Your task to perform on an android device: install app "Skype" Image 0: 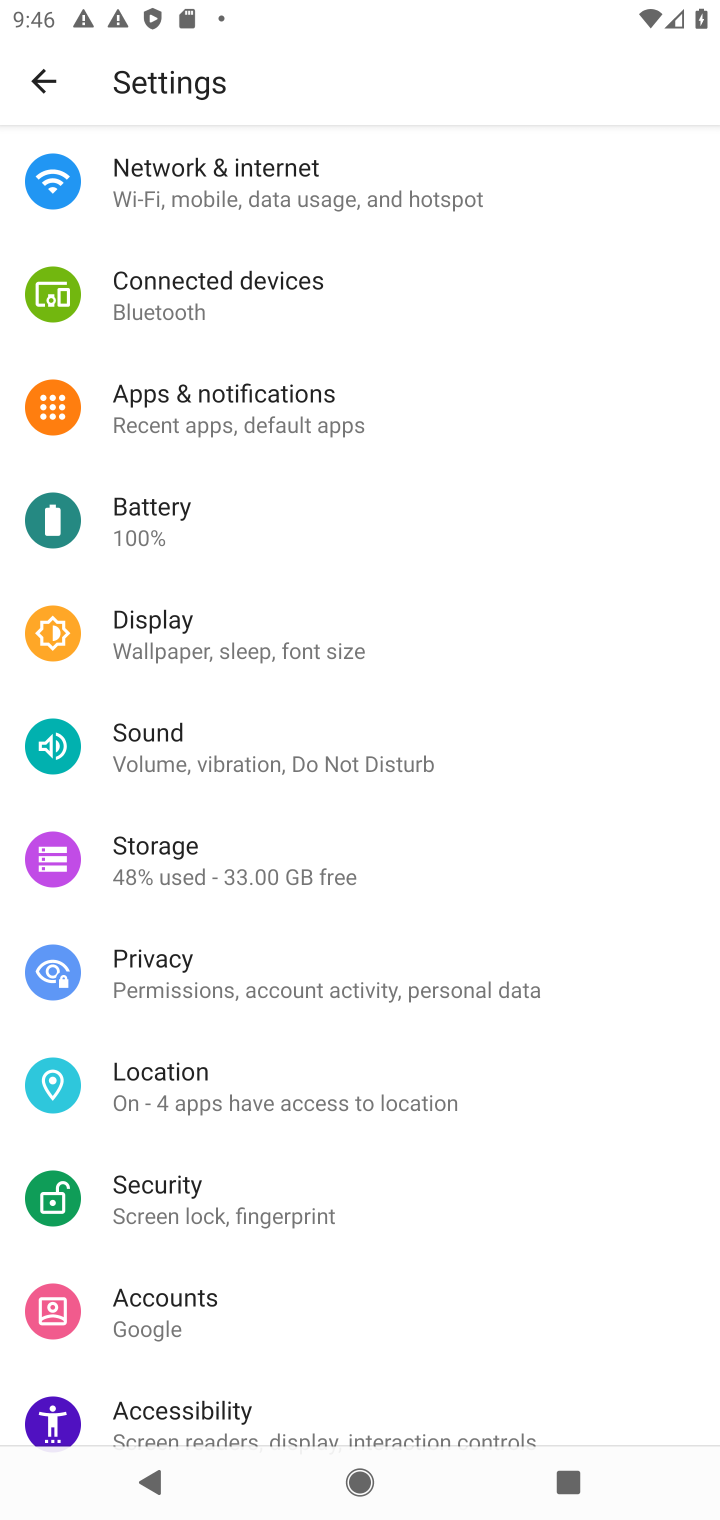
Step 0: press home button
Your task to perform on an android device: install app "Skype" Image 1: 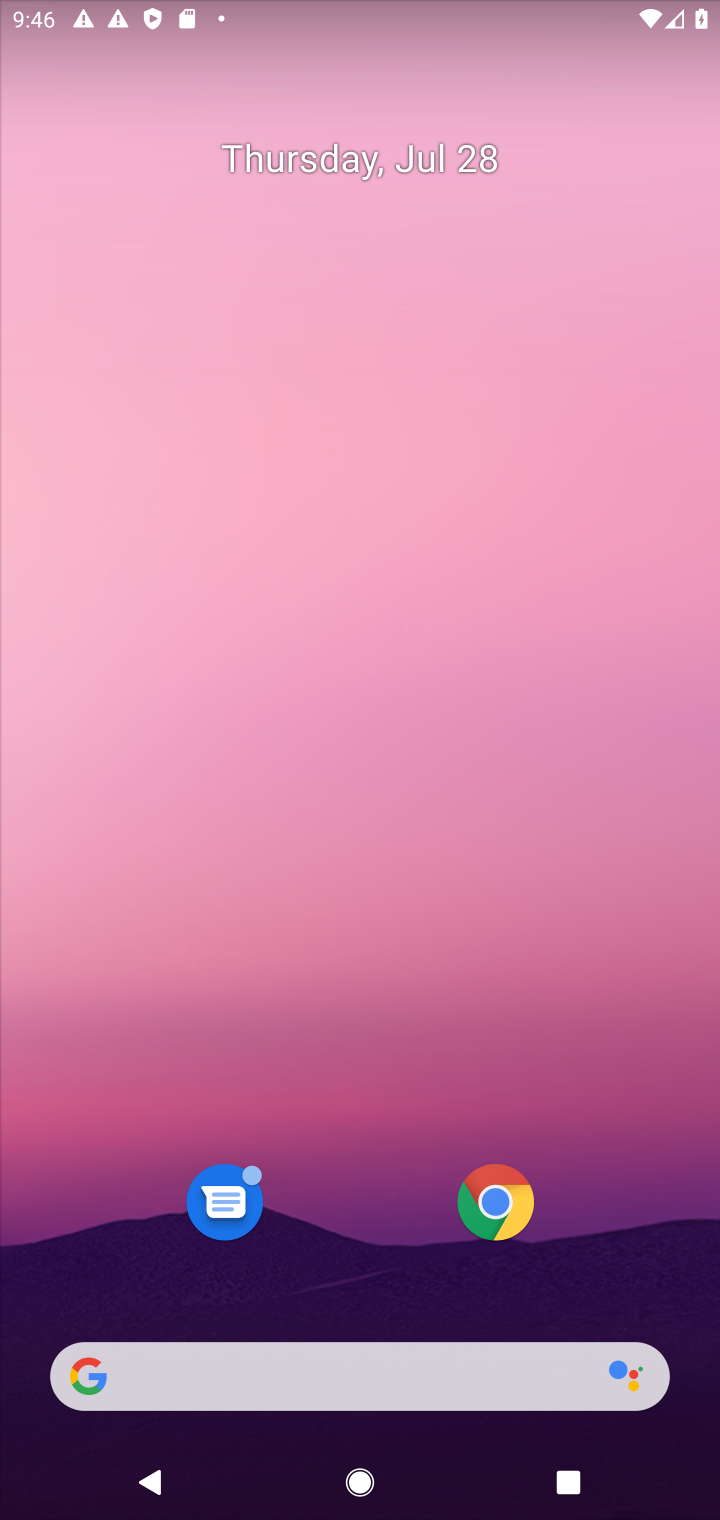
Step 1: click (382, 1389)
Your task to perform on an android device: install app "Skype" Image 2: 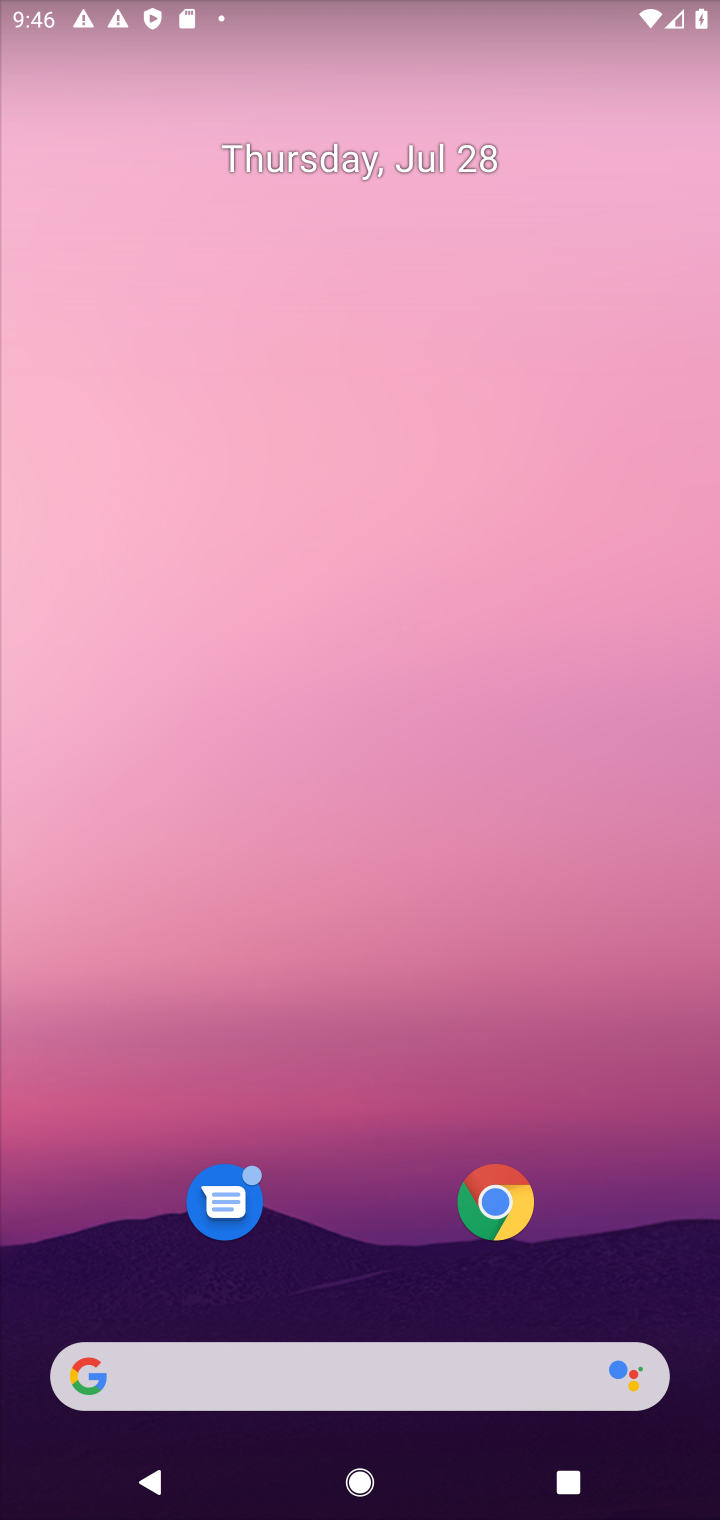
Step 2: click (382, 1389)
Your task to perform on an android device: install app "Skype" Image 3: 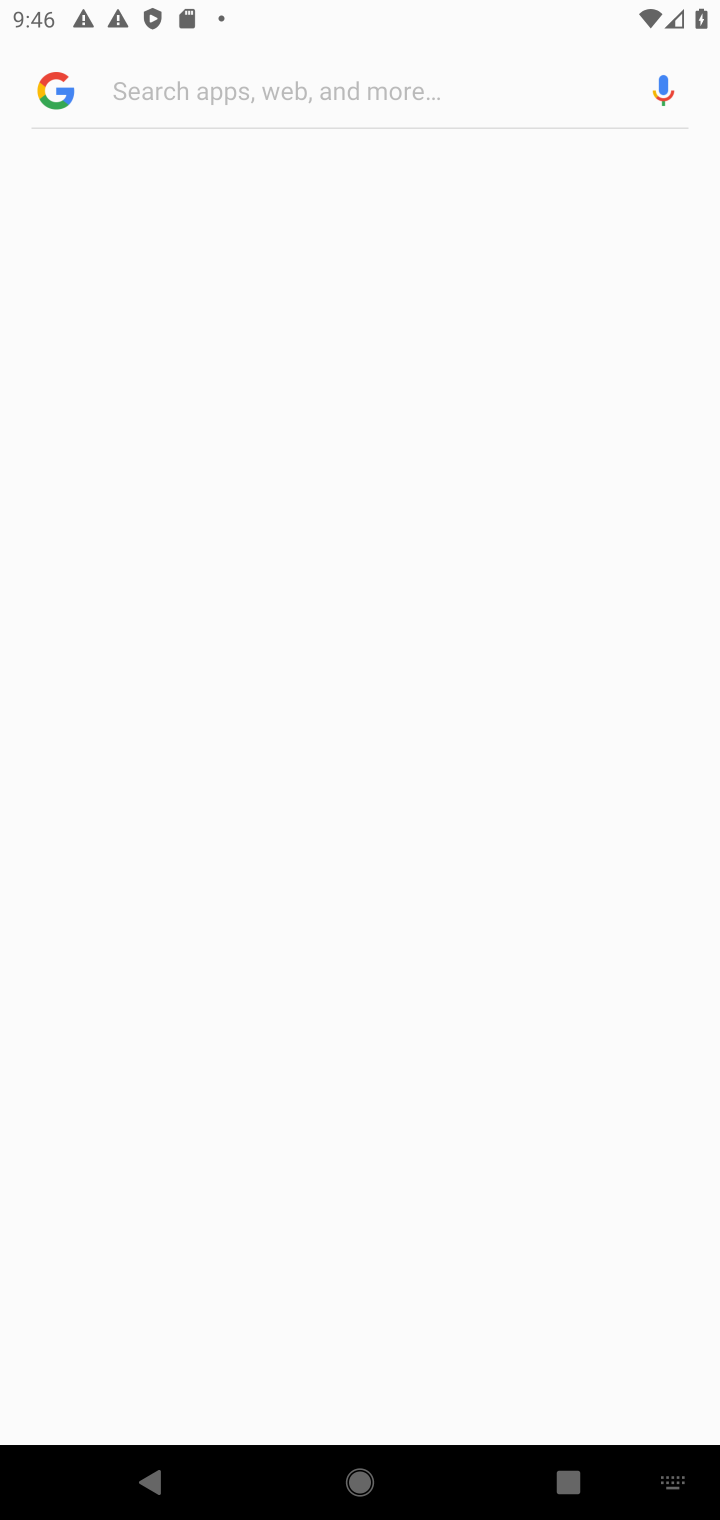
Step 3: type "skpe"
Your task to perform on an android device: install app "Skype" Image 4: 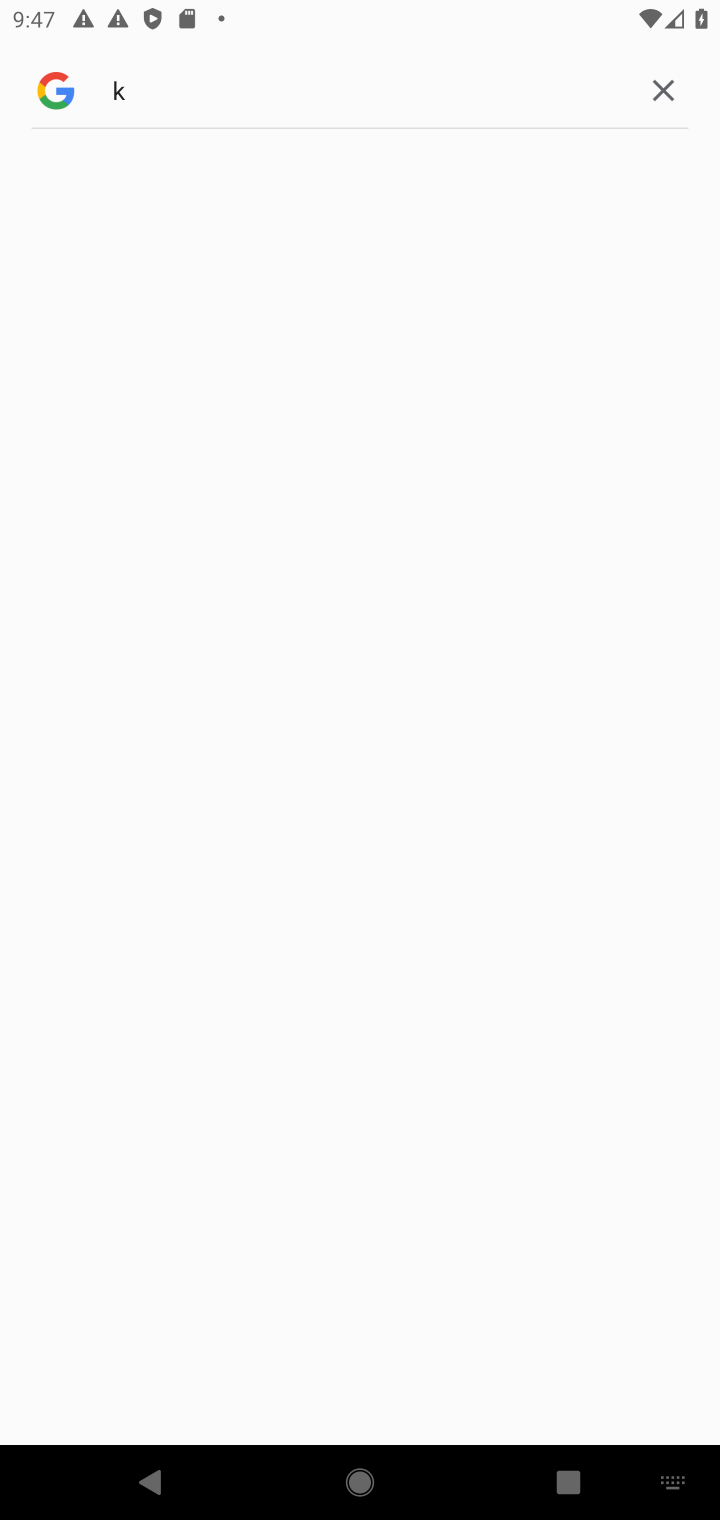
Step 4: type "skype"
Your task to perform on an android device: install app "Skype" Image 5: 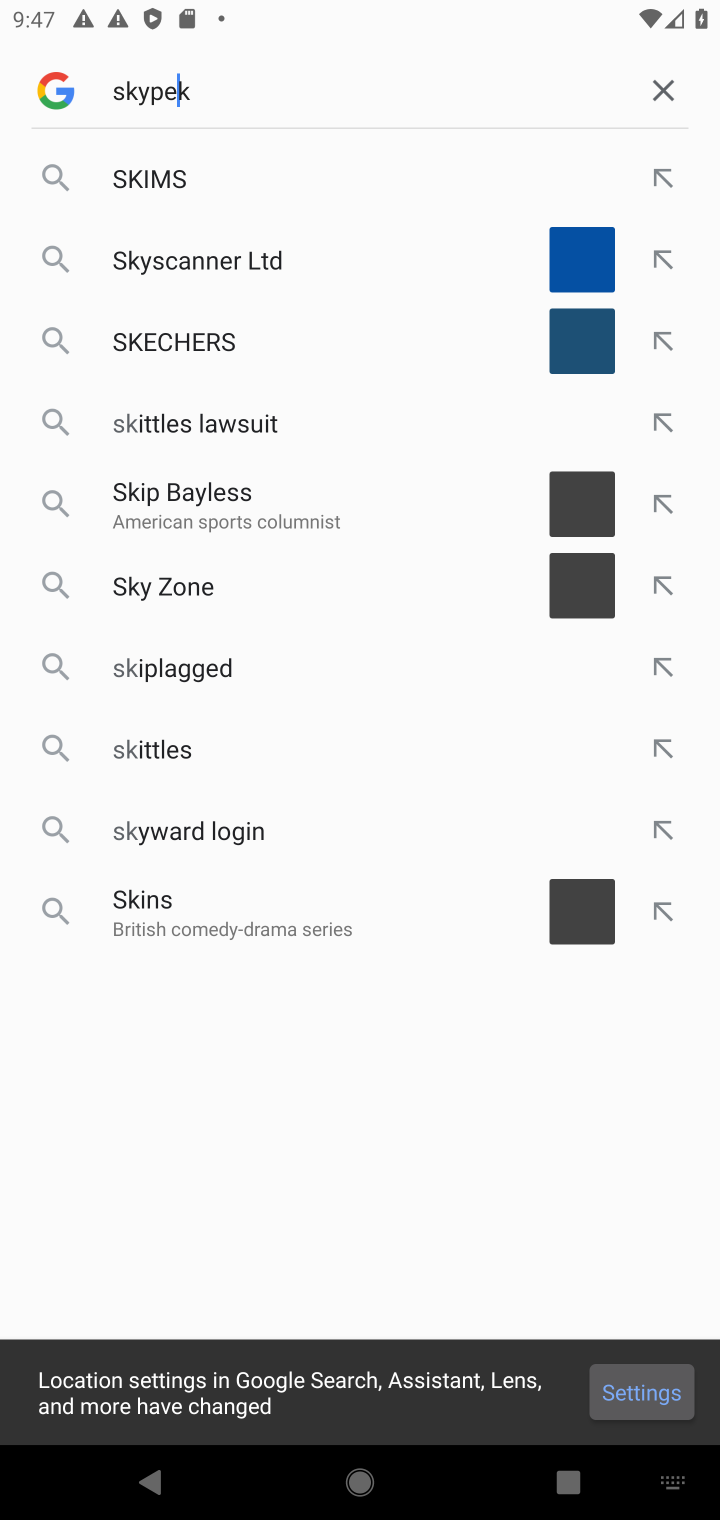
Step 5: click (654, 112)
Your task to perform on an android device: install app "Skype" Image 6: 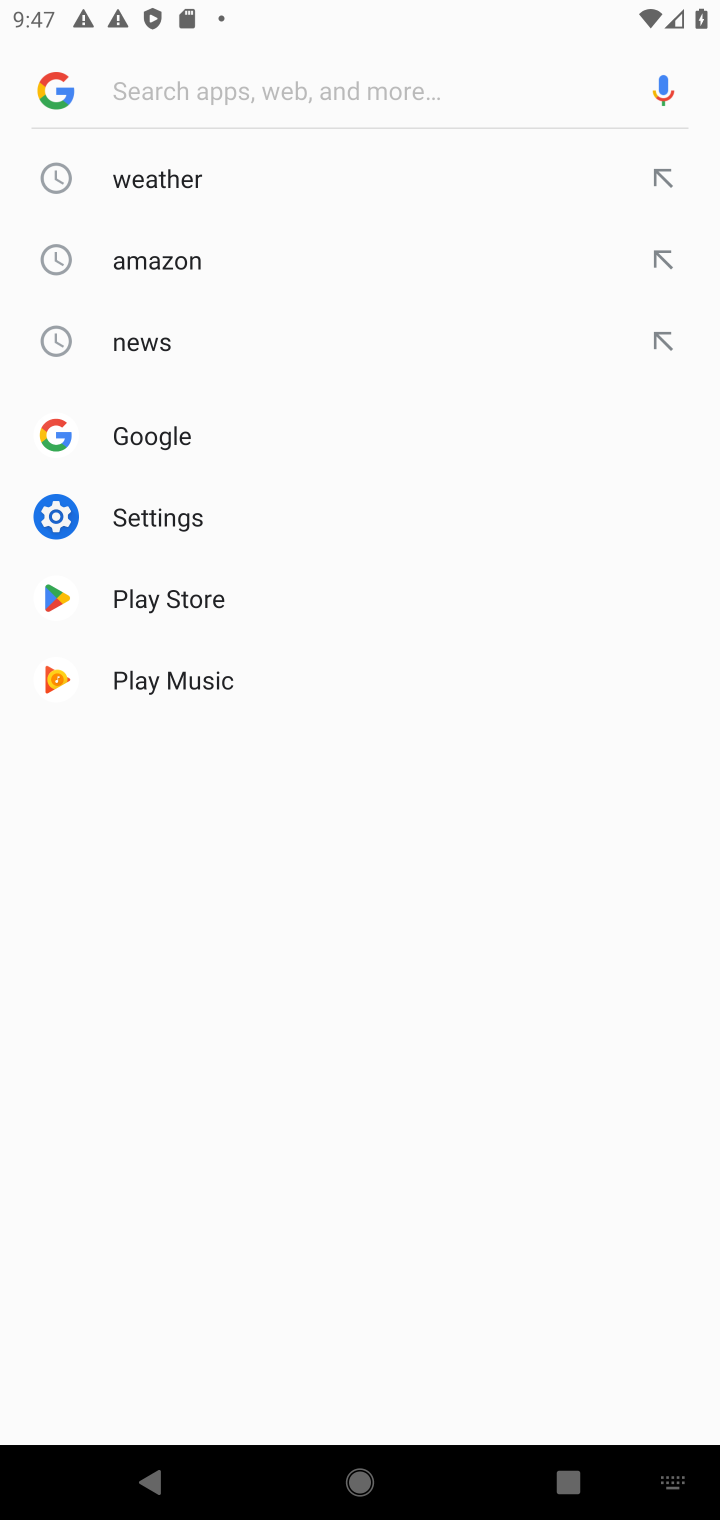
Step 6: type "skype"
Your task to perform on an android device: install app "Skype" Image 7: 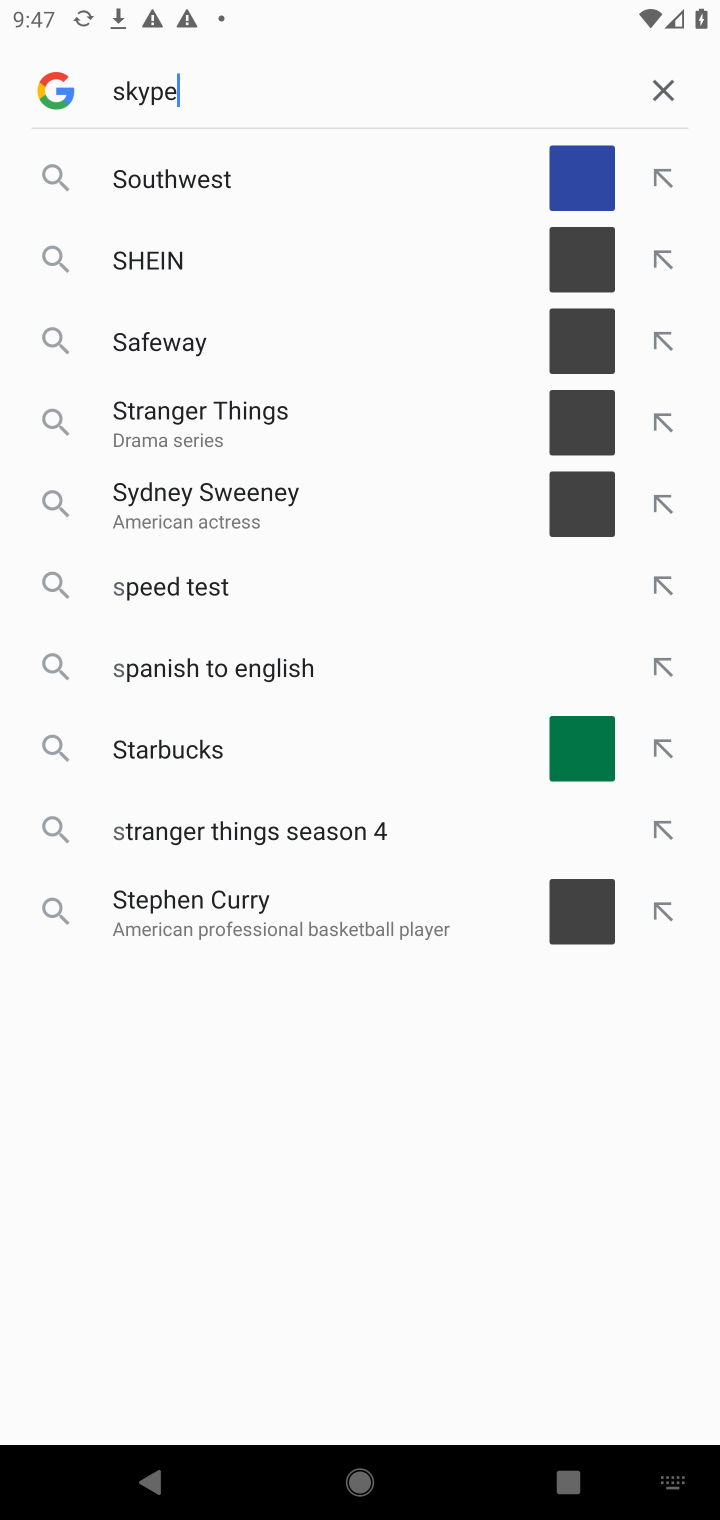
Step 7: click (258, 74)
Your task to perform on an android device: install app "Skype" Image 8: 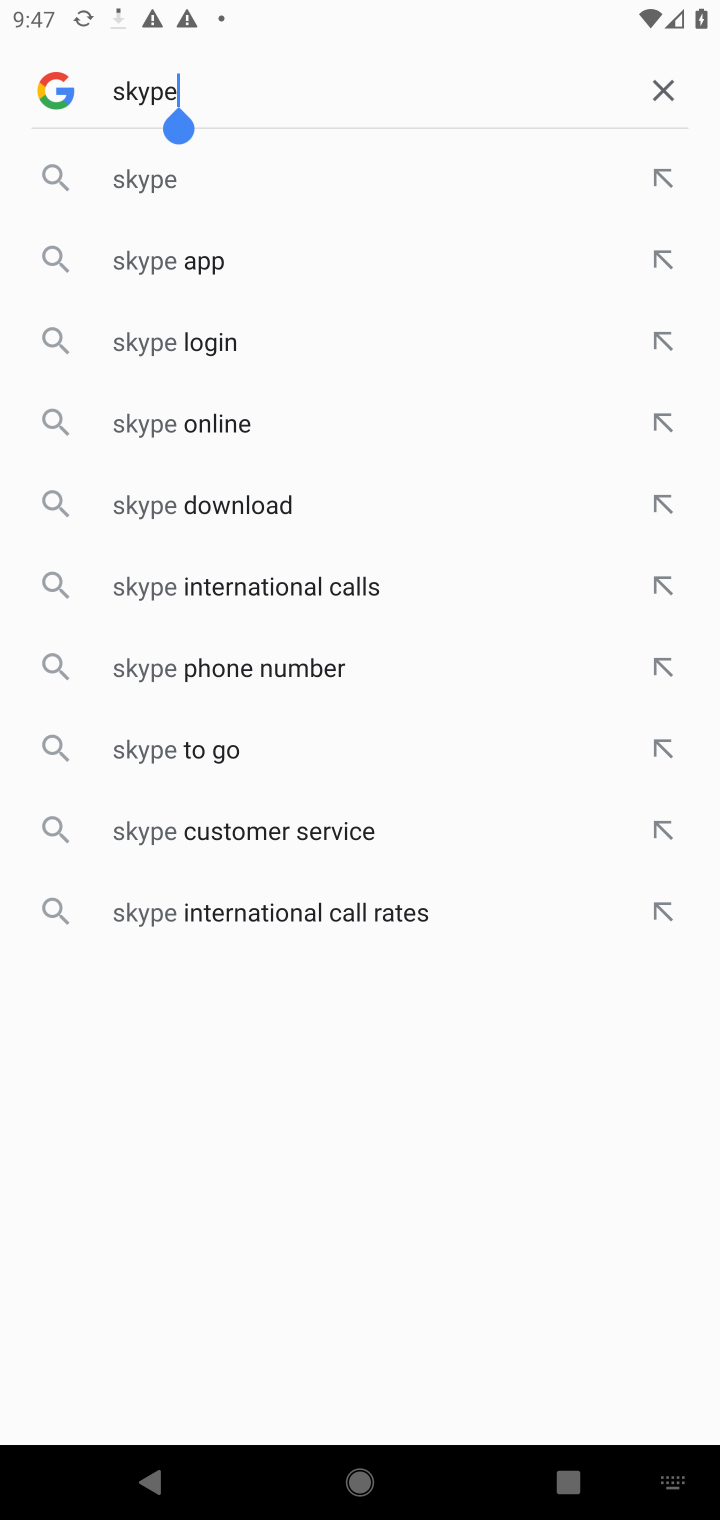
Step 8: click (685, 253)
Your task to perform on an android device: install app "Skype" Image 9: 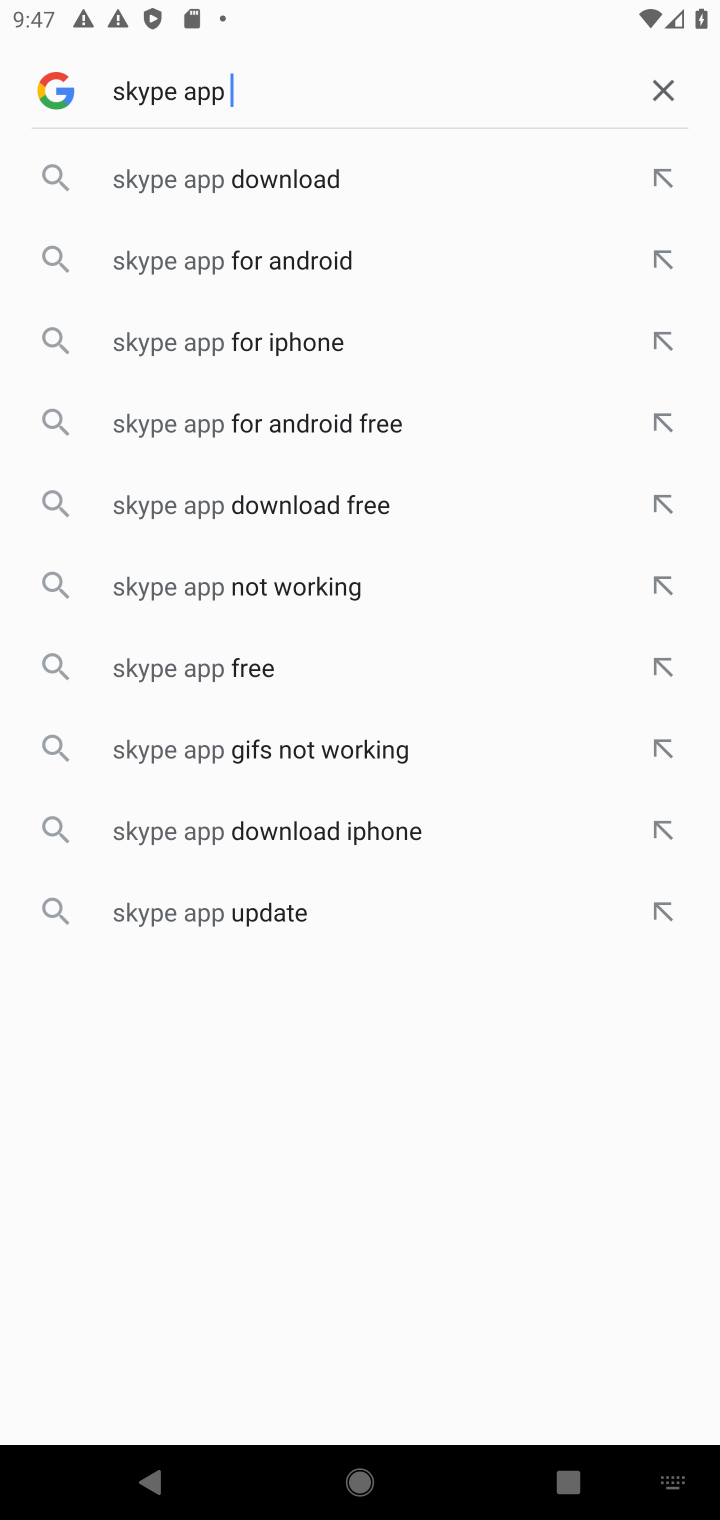
Step 9: click (246, 188)
Your task to perform on an android device: install app "Skype" Image 10: 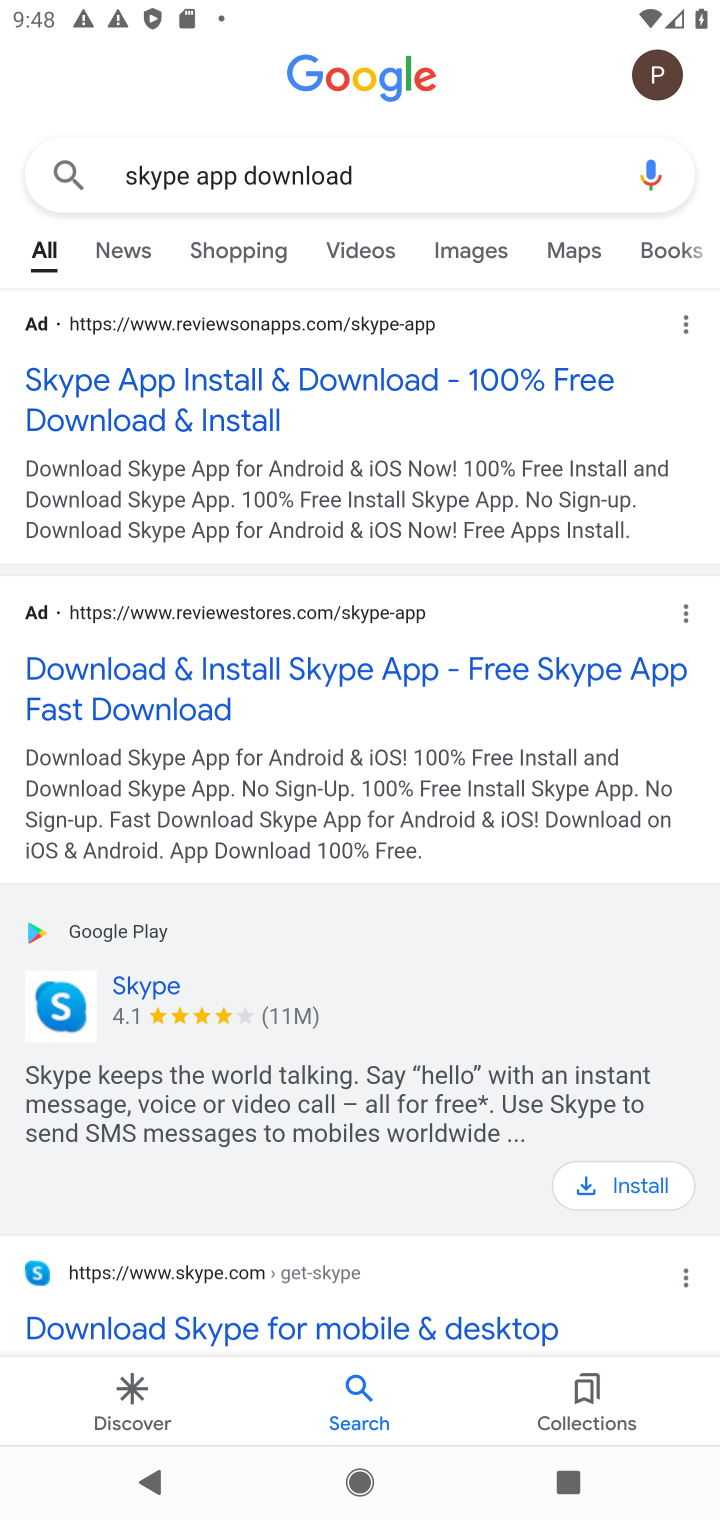
Step 10: click (644, 1175)
Your task to perform on an android device: install app "Skype" Image 11: 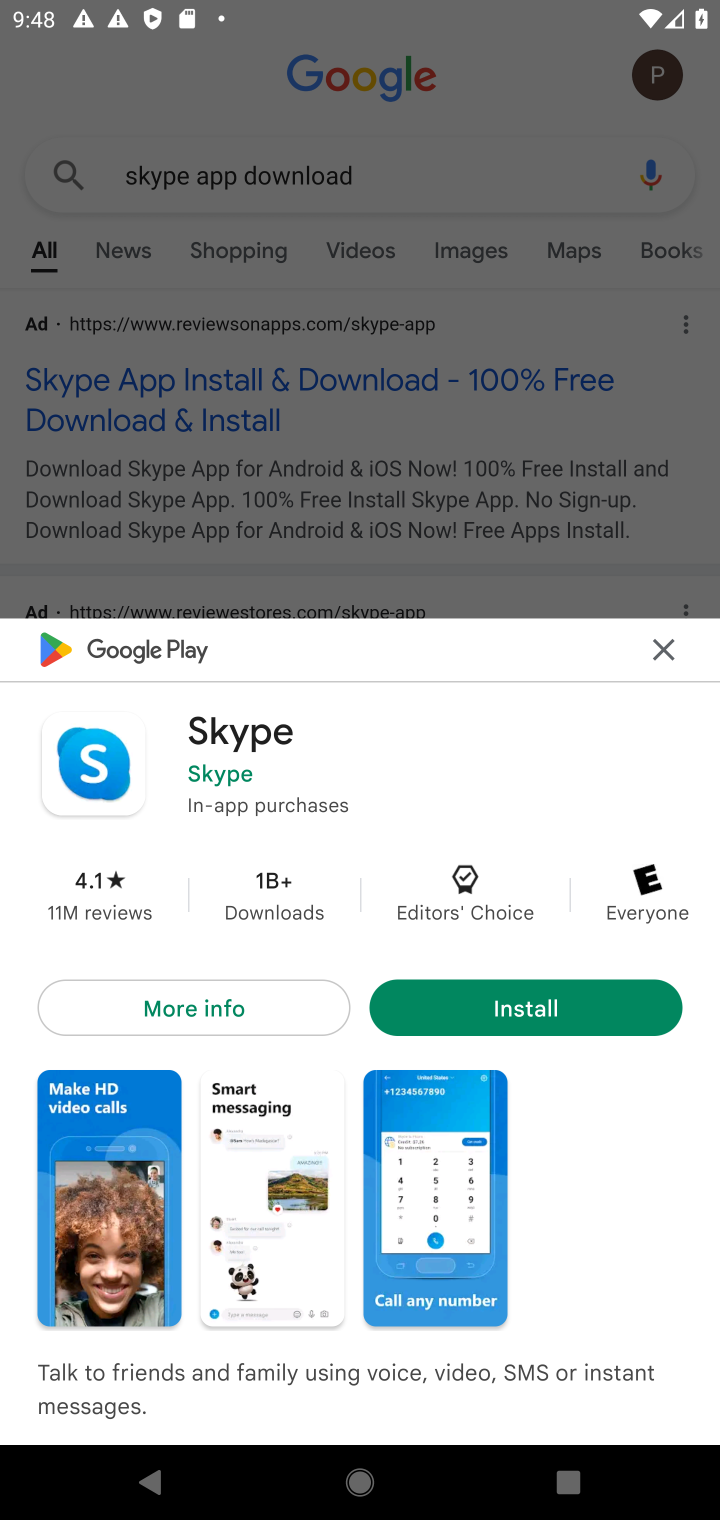
Step 11: click (579, 1002)
Your task to perform on an android device: install app "Skype" Image 12: 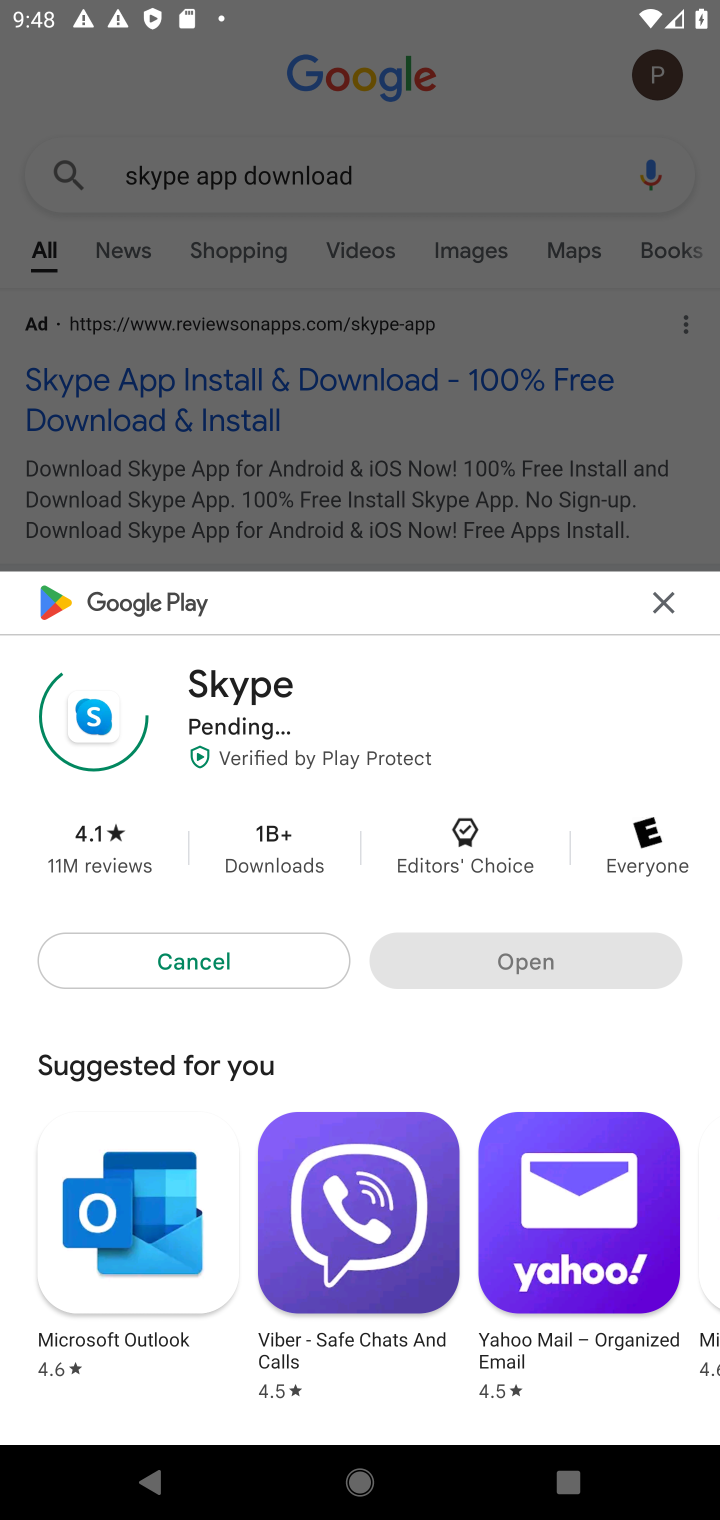
Step 12: task complete